Your task to perform on an android device: Play the last video I watched on Youtube Image 0: 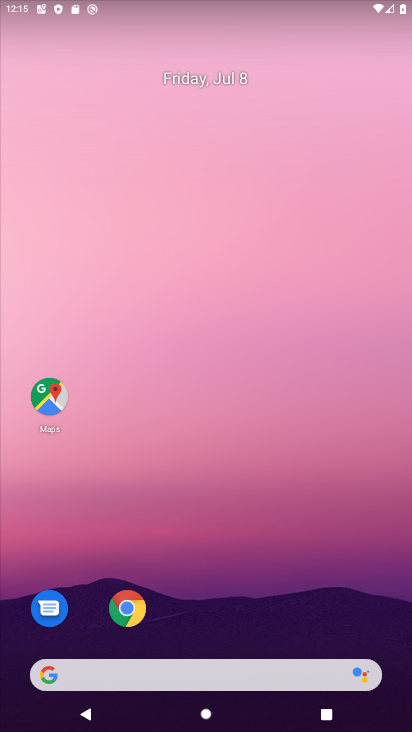
Step 0: press home button
Your task to perform on an android device: Play the last video I watched on Youtube Image 1: 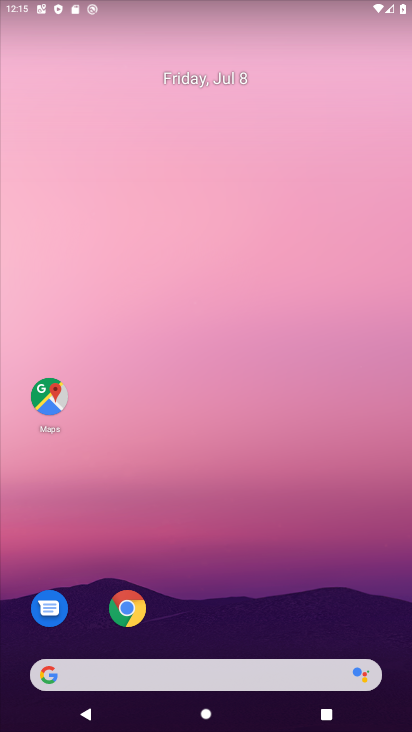
Step 1: drag from (289, 617) to (133, 144)
Your task to perform on an android device: Play the last video I watched on Youtube Image 2: 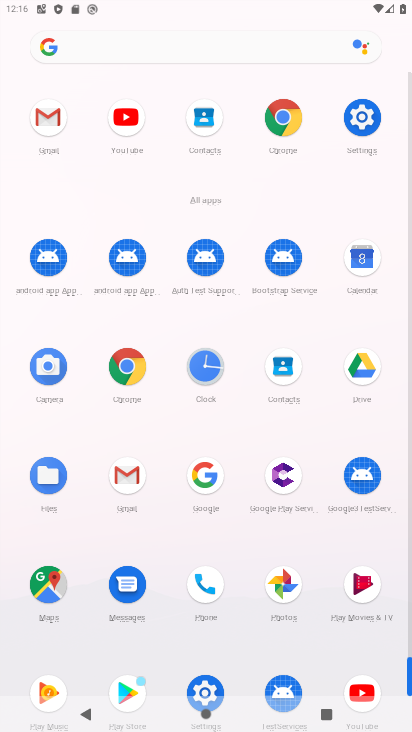
Step 2: click (118, 154)
Your task to perform on an android device: Play the last video I watched on Youtube Image 3: 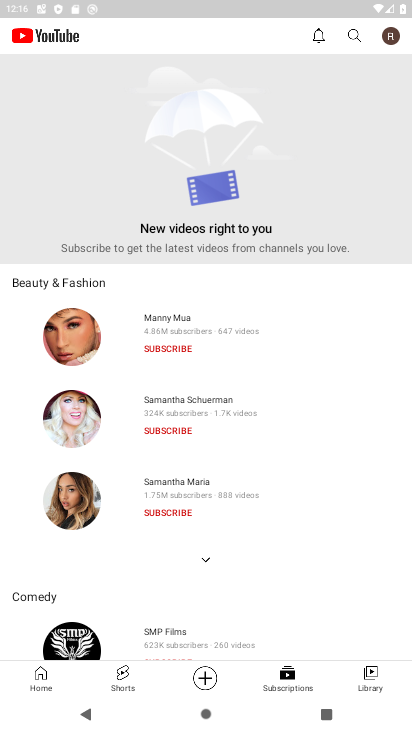
Step 3: click (24, 680)
Your task to perform on an android device: Play the last video I watched on Youtube Image 4: 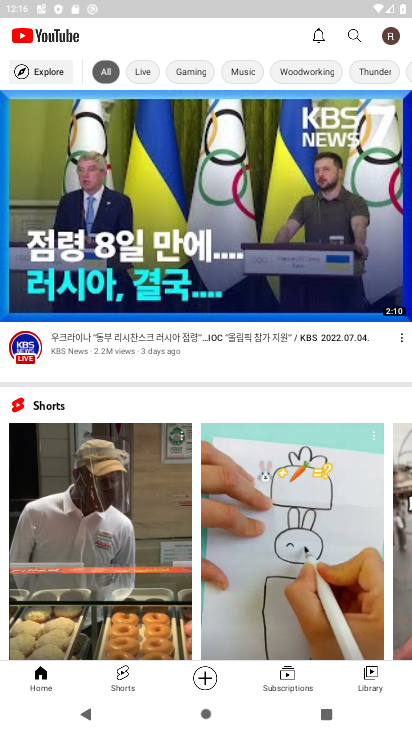
Step 4: click (372, 665)
Your task to perform on an android device: Play the last video I watched on Youtube Image 5: 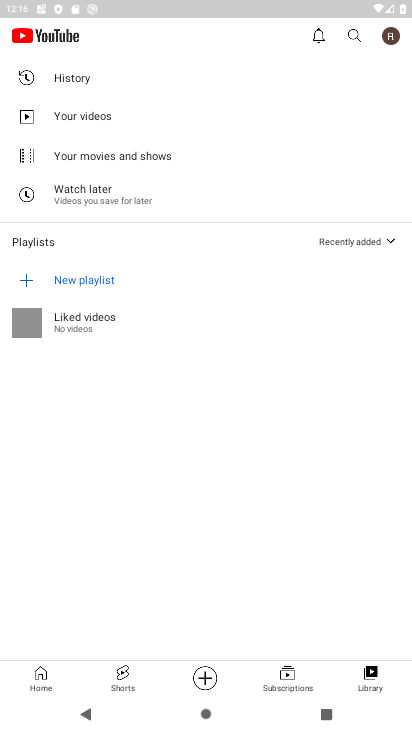
Step 5: click (65, 87)
Your task to perform on an android device: Play the last video I watched on Youtube Image 6: 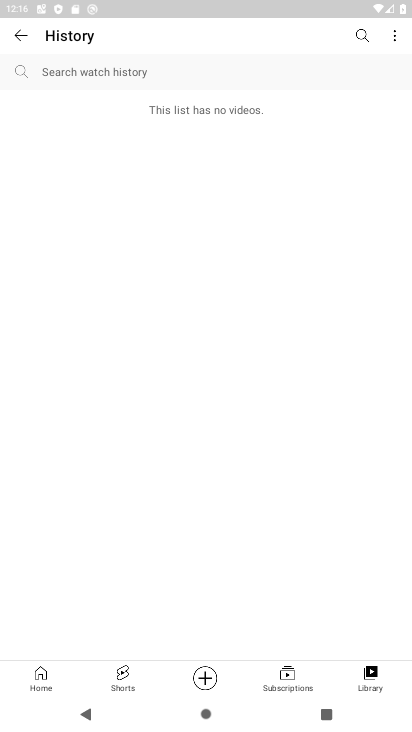
Step 6: task complete